Your task to perform on an android device: Open my contact list Image 0: 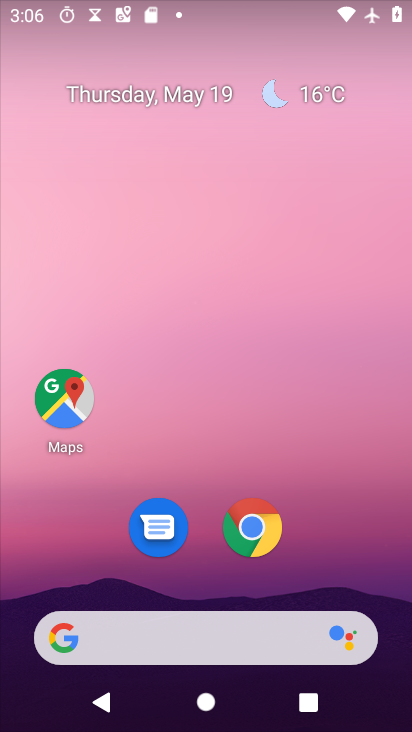
Step 0: drag from (345, 479) to (276, 105)
Your task to perform on an android device: Open my contact list Image 1: 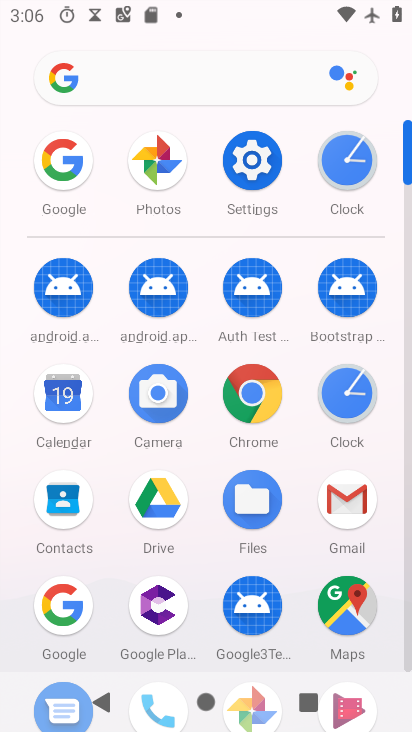
Step 1: click (71, 525)
Your task to perform on an android device: Open my contact list Image 2: 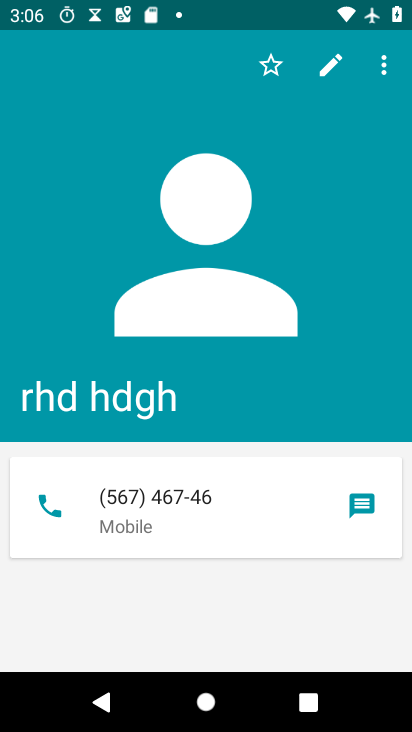
Step 2: task complete